Your task to perform on an android device: Open maps Image 0: 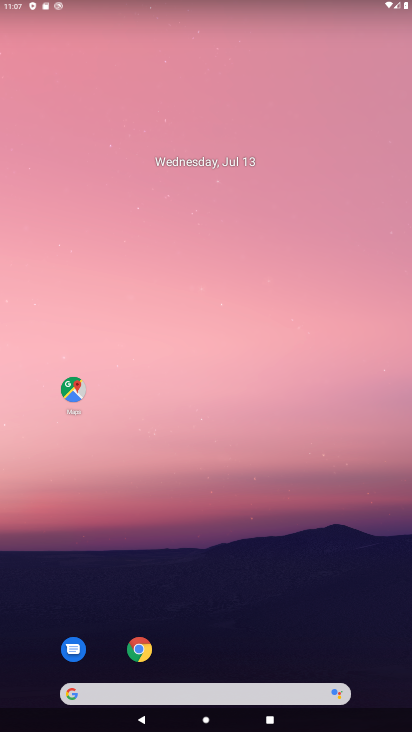
Step 0: click (80, 389)
Your task to perform on an android device: Open maps Image 1: 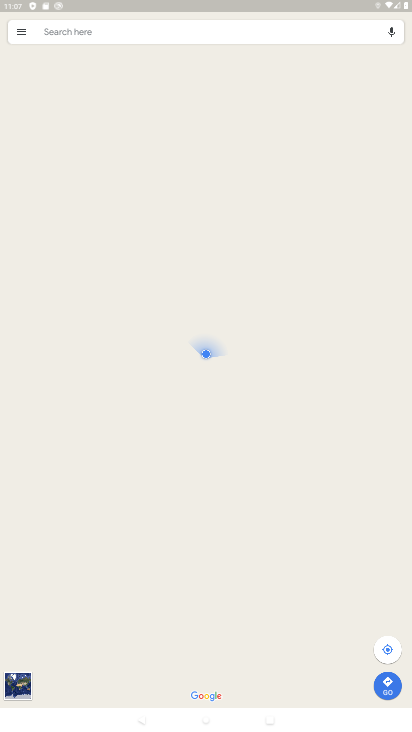
Step 1: task complete